Your task to perform on an android device: Open Wikipedia Image 0: 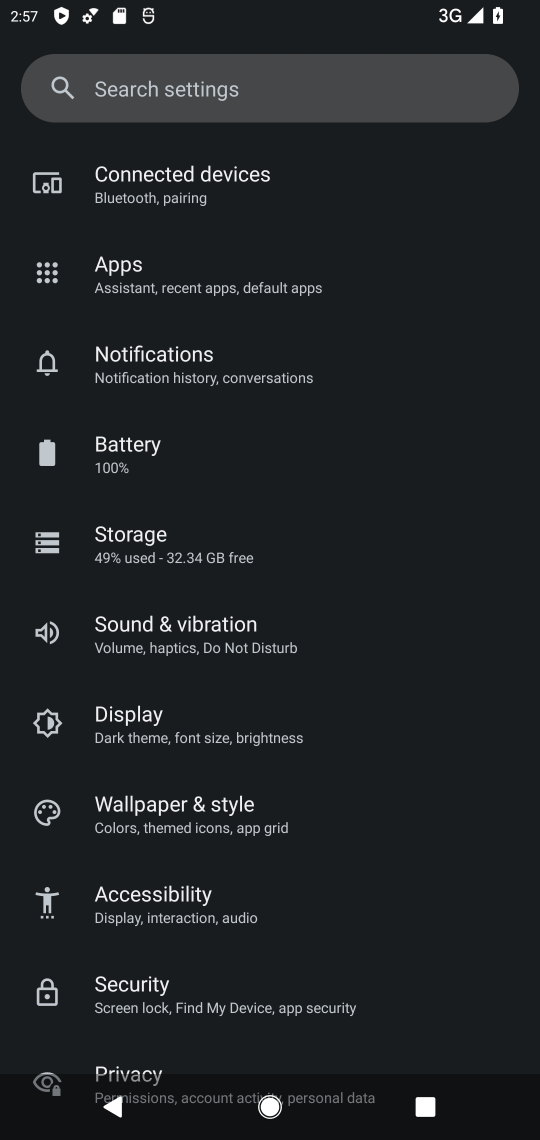
Step 0: press home button
Your task to perform on an android device: Open Wikipedia Image 1: 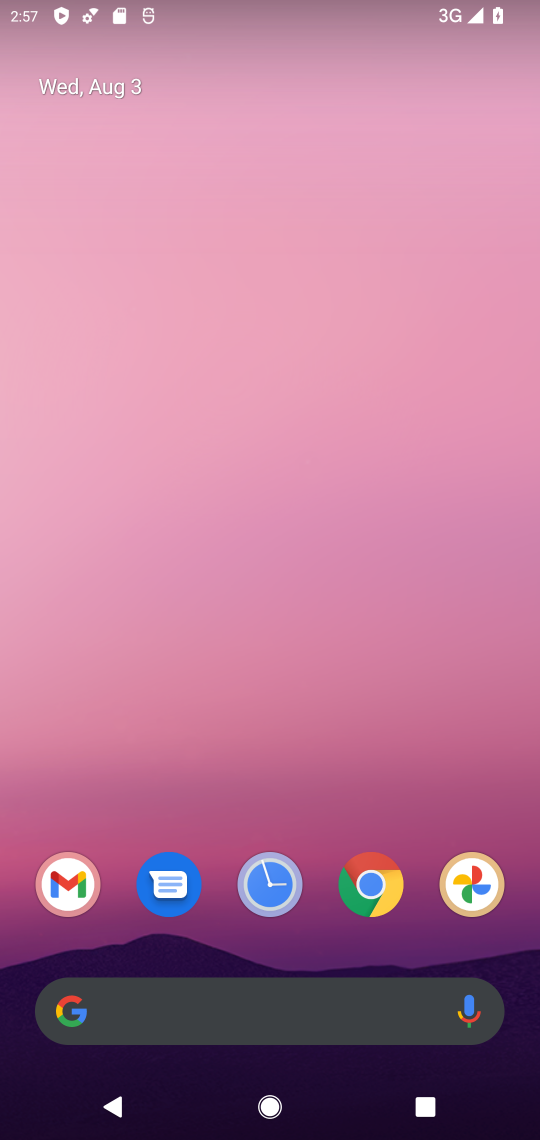
Step 1: click (190, 1007)
Your task to perform on an android device: Open Wikipedia Image 2: 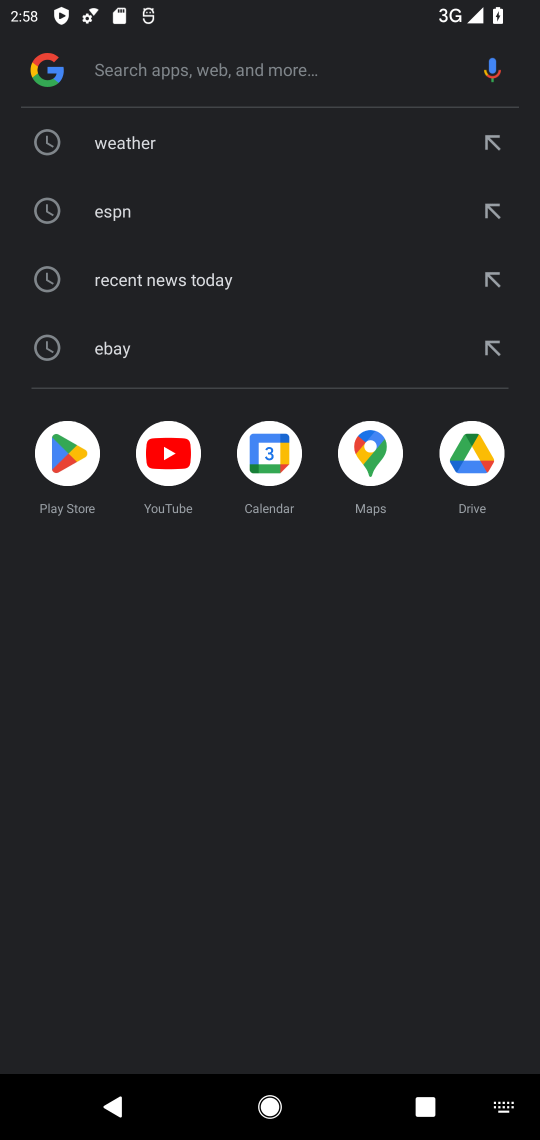
Step 2: type "wikipedia"
Your task to perform on an android device: Open Wikipedia Image 3: 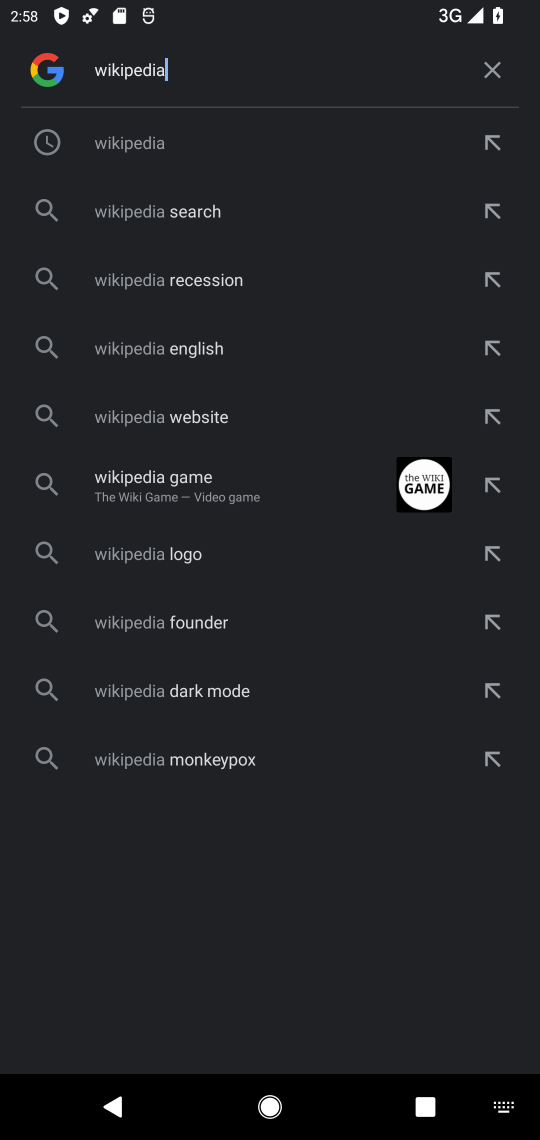
Step 3: click (240, 153)
Your task to perform on an android device: Open Wikipedia Image 4: 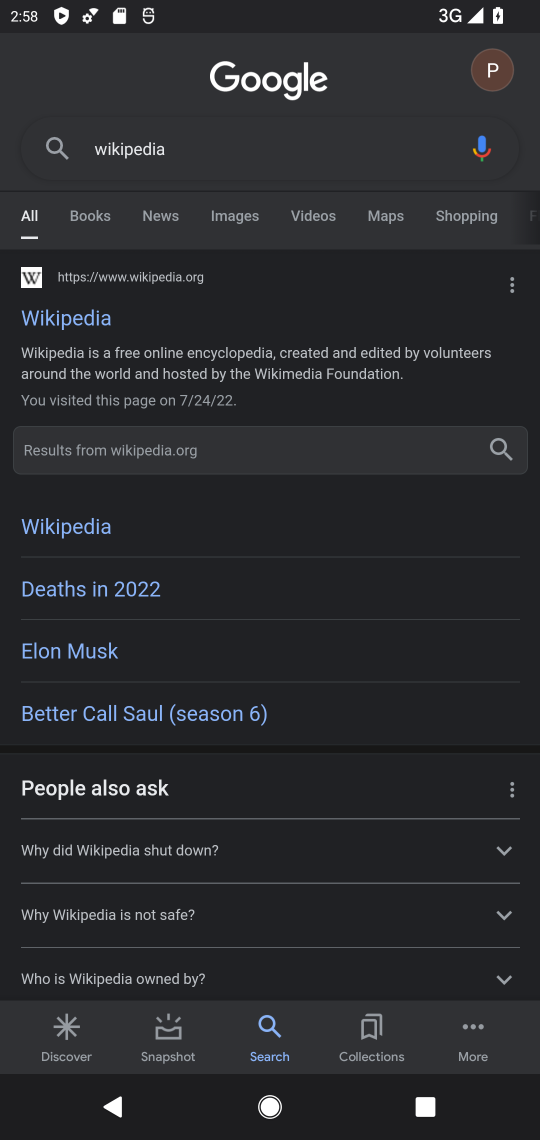
Step 4: click (102, 328)
Your task to perform on an android device: Open Wikipedia Image 5: 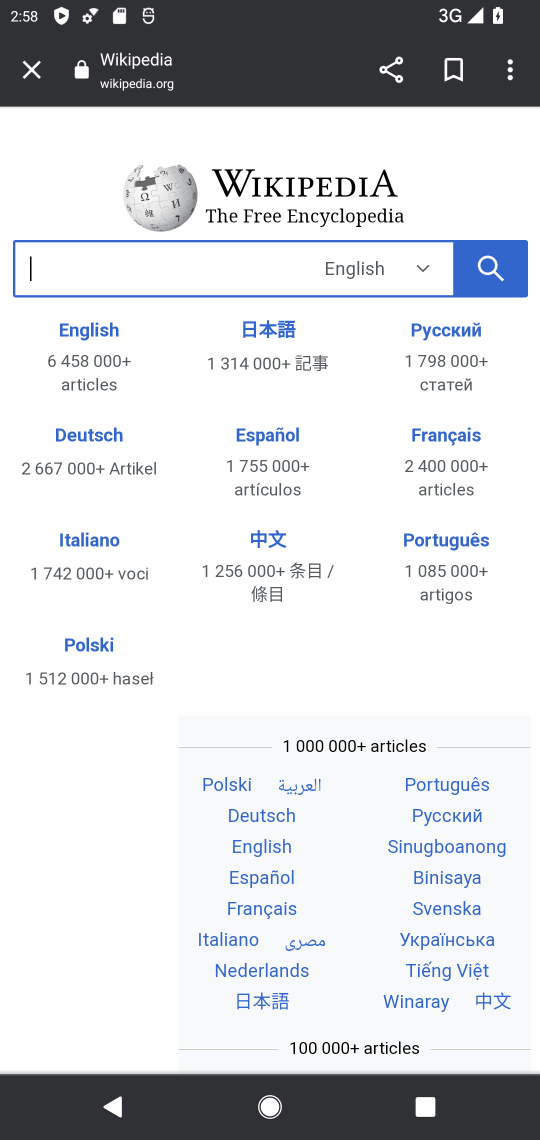
Step 5: task complete